Your task to perform on an android device: see creations saved in the google photos Image 0: 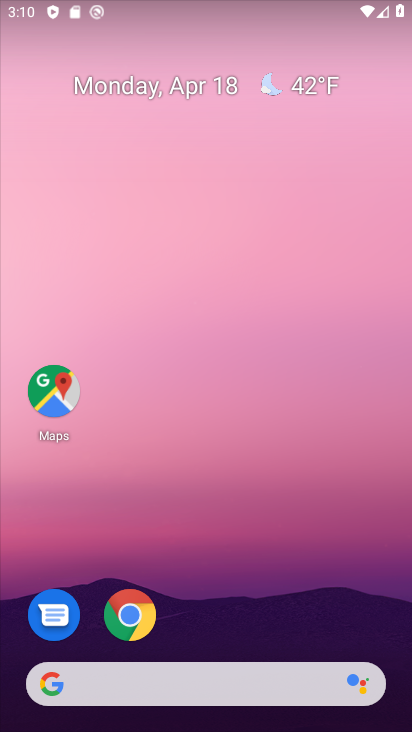
Step 0: drag from (262, 362) to (6, 306)
Your task to perform on an android device: see creations saved in the google photos Image 1: 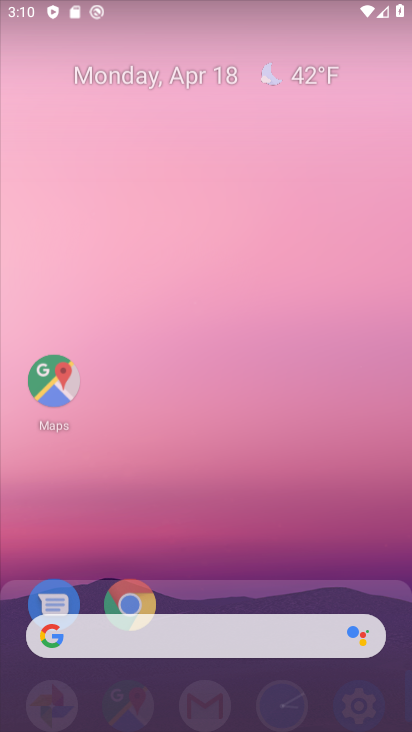
Step 1: drag from (214, 580) to (248, 78)
Your task to perform on an android device: see creations saved in the google photos Image 2: 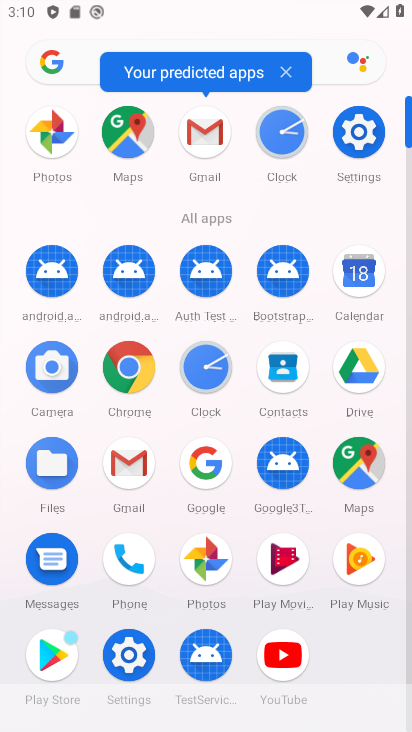
Step 2: click (206, 559)
Your task to perform on an android device: see creations saved in the google photos Image 3: 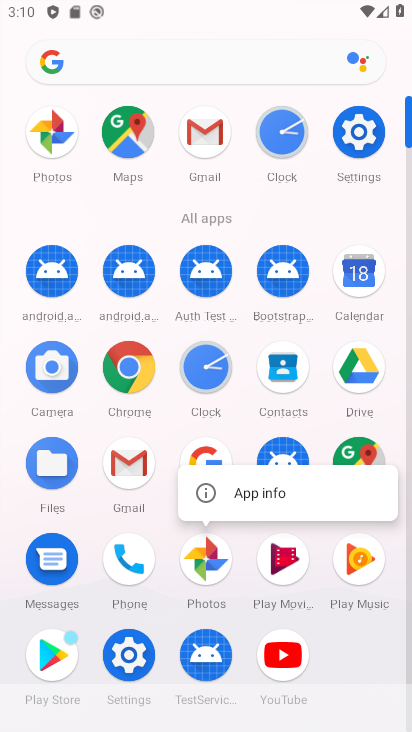
Step 3: click (206, 559)
Your task to perform on an android device: see creations saved in the google photos Image 4: 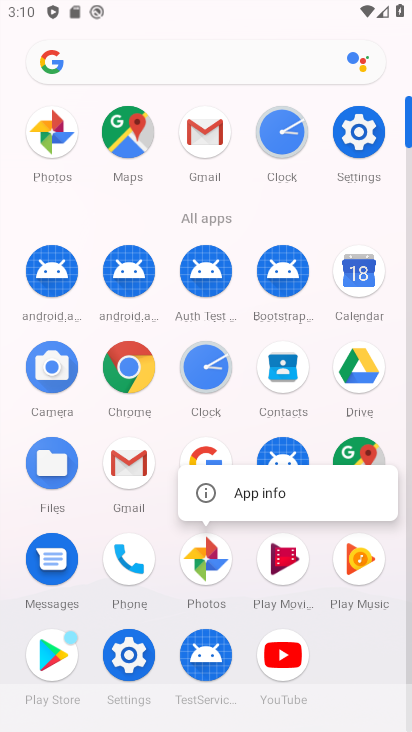
Step 4: click (216, 563)
Your task to perform on an android device: see creations saved in the google photos Image 5: 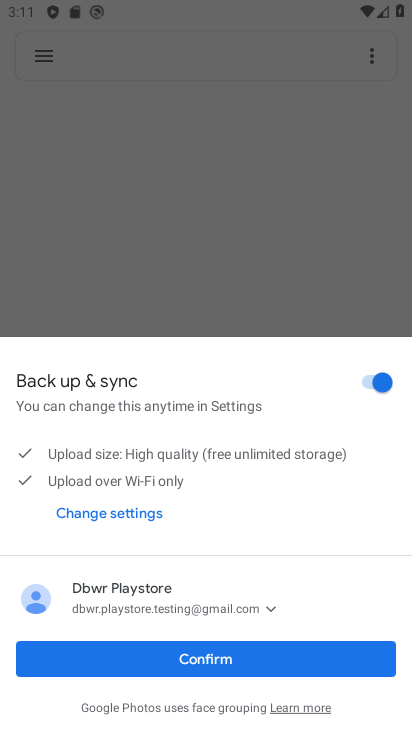
Step 5: drag from (278, 655) to (385, 655)
Your task to perform on an android device: see creations saved in the google photos Image 6: 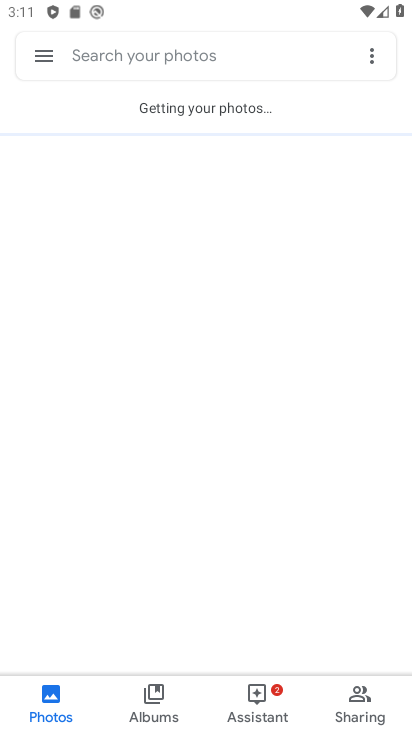
Step 6: click (216, 57)
Your task to perform on an android device: see creations saved in the google photos Image 7: 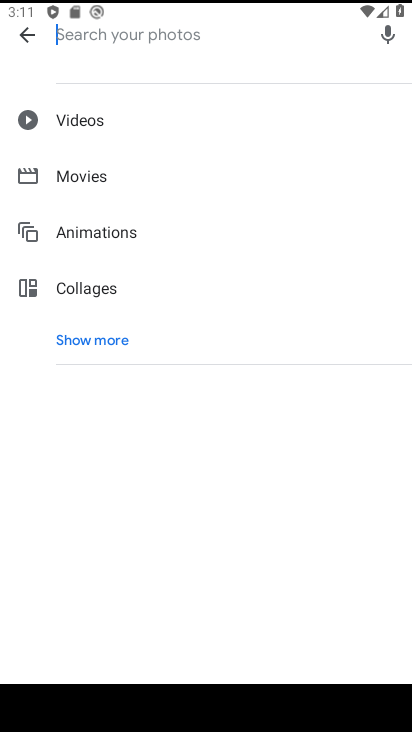
Step 7: click (117, 346)
Your task to perform on an android device: see creations saved in the google photos Image 8: 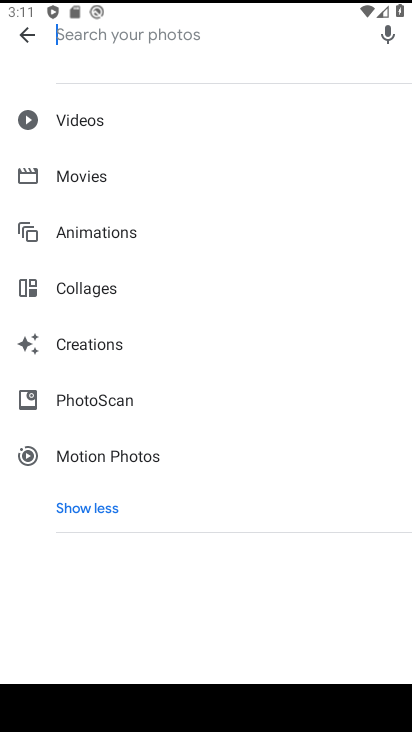
Step 8: click (115, 344)
Your task to perform on an android device: see creations saved in the google photos Image 9: 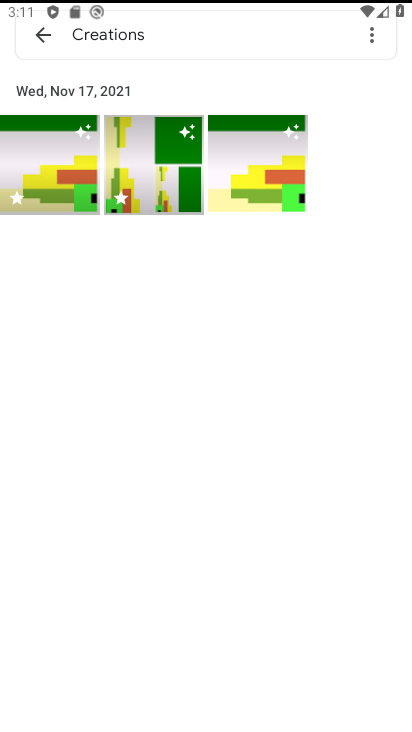
Step 9: task complete